Your task to perform on an android device: Open eBay Image 0: 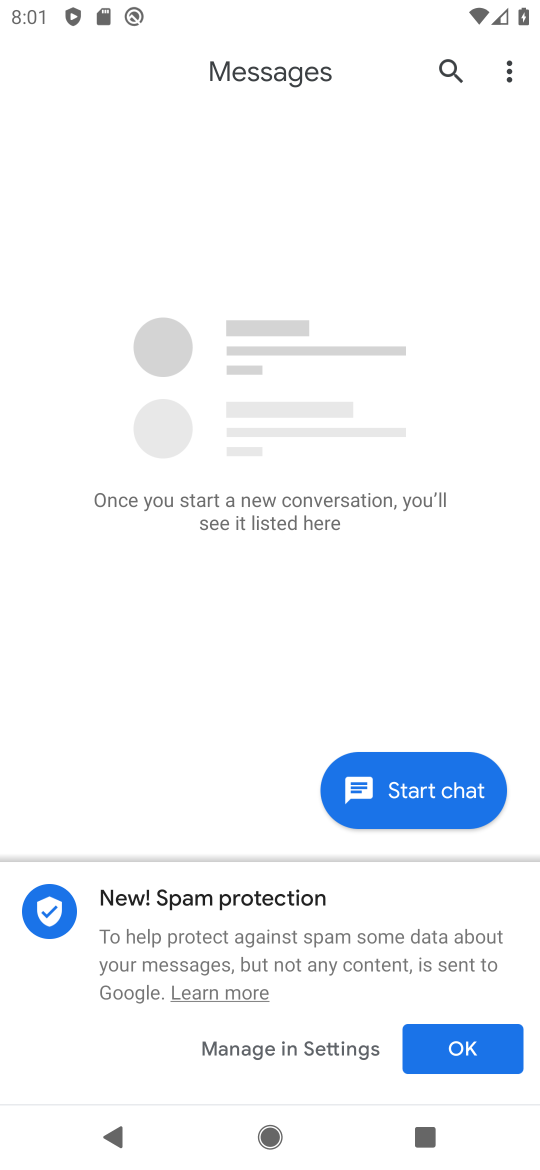
Step 0: press home button
Your task to perform on an android device: Open eBay Image 1: 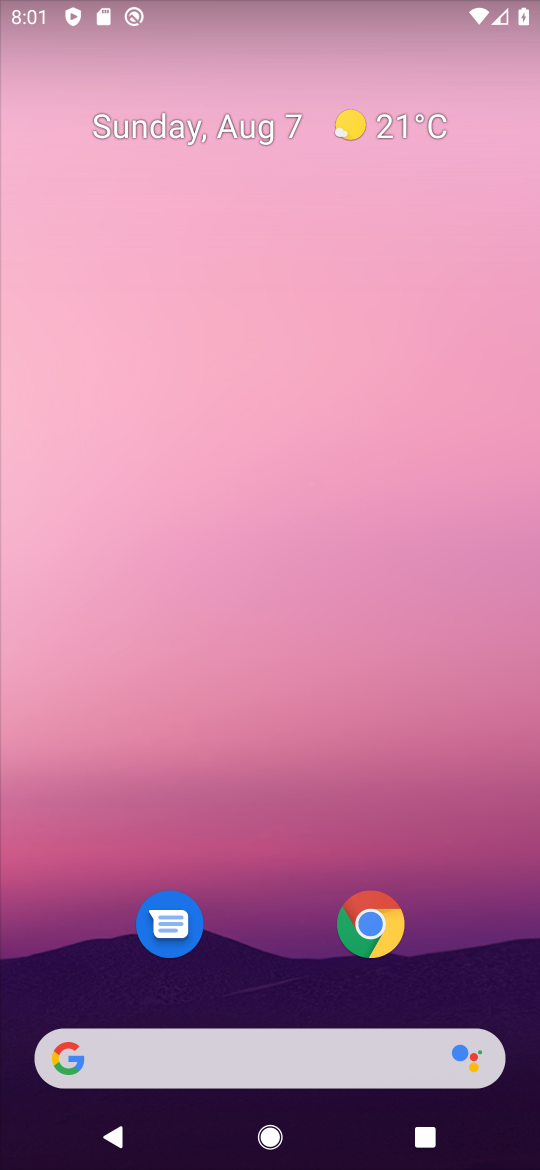
Step 1: click (312, 1060)
Your task to perform on an android device: Open eBay Image 2: 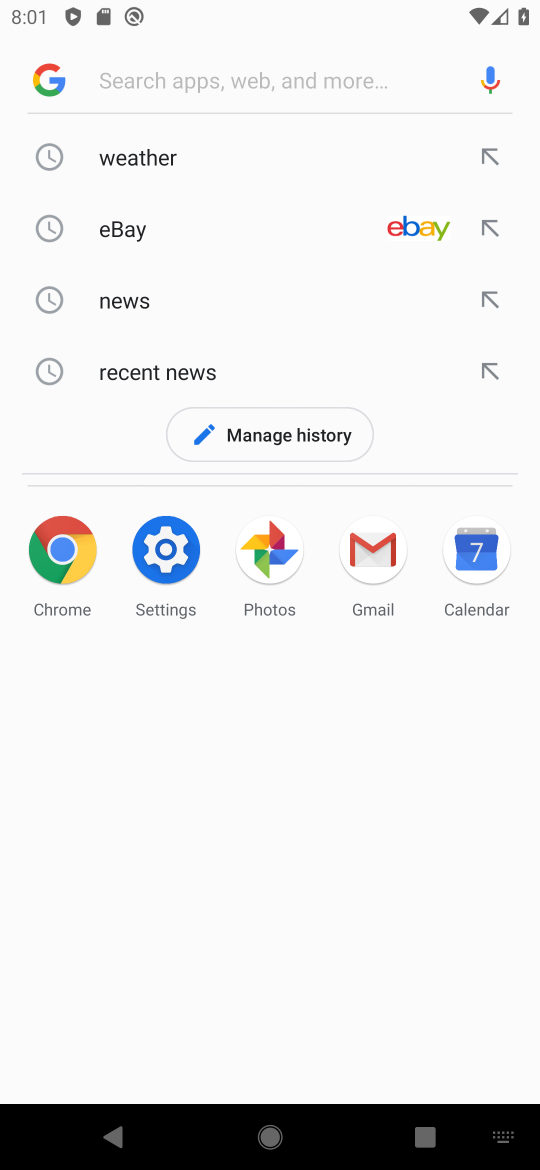
Step 2: click (274, 230)
Your task to perform on an android device: Open eBay Image 3: 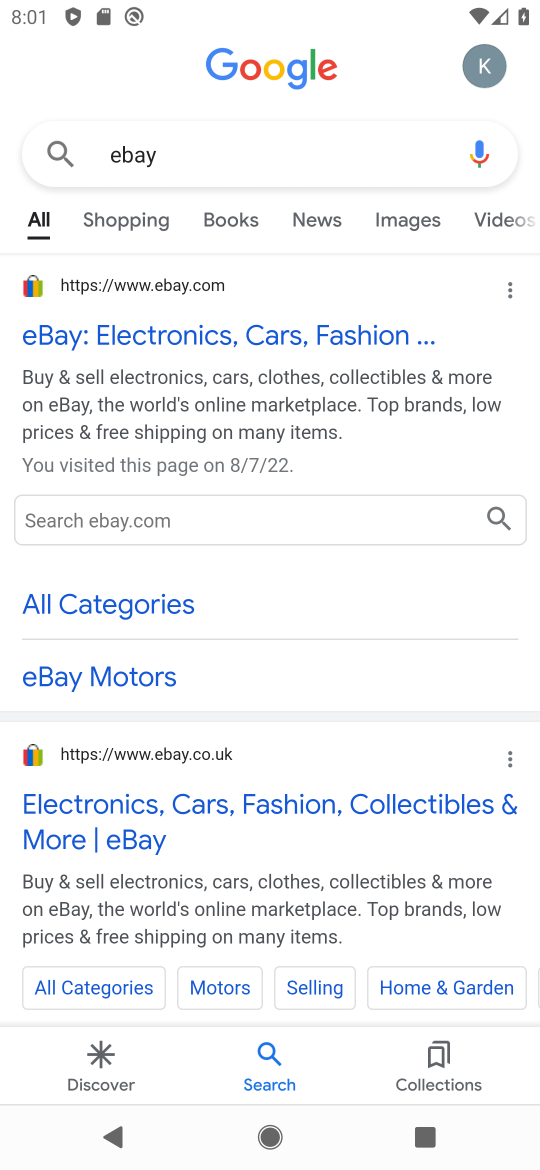
Step 3: click (56, 336)
Your task to perform on an android device: Open eBay Image 4: 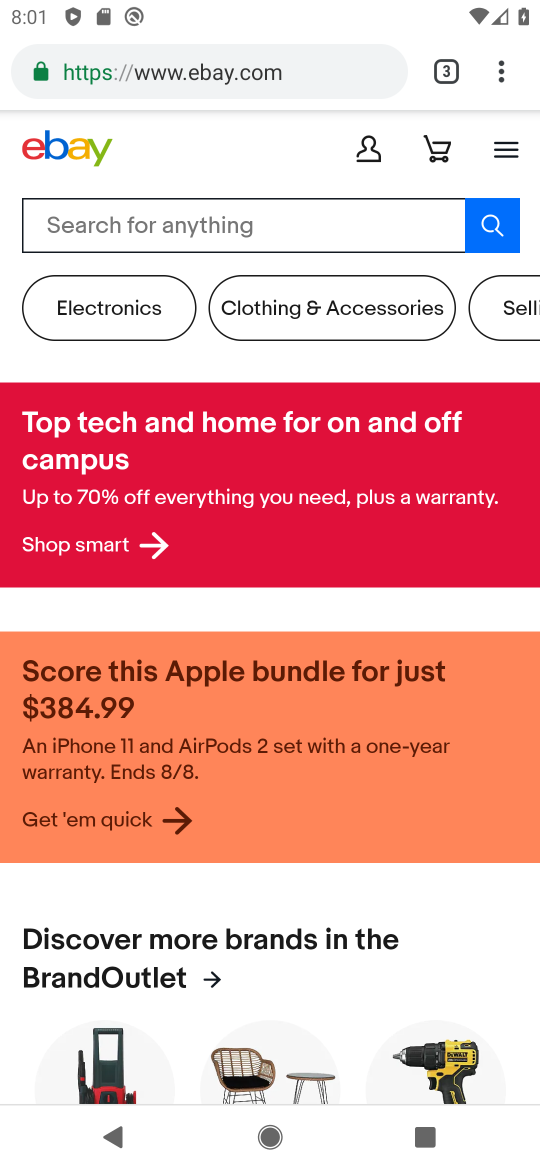
Step 4: task complete